Your task to perform on an android device: turn notification dots off Image 0: 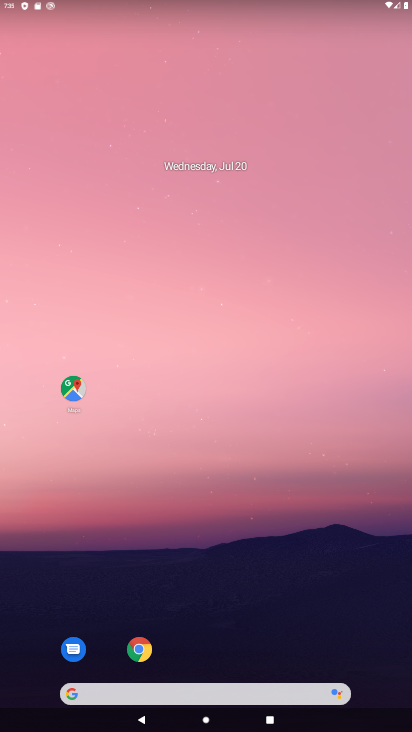
Step 0: drag from (230, 660) to (214, 80)
Your task to perform on an android device: turn notification dots off Image 1: 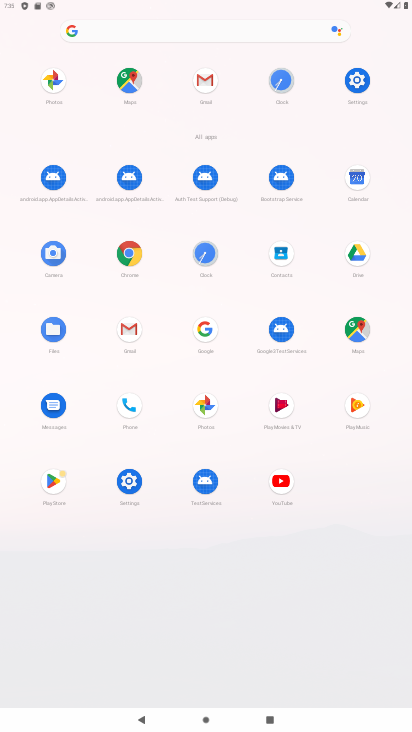
Step 1: click (345, 98)
Your task to perform on an android device: turn notification dots off Image 2: 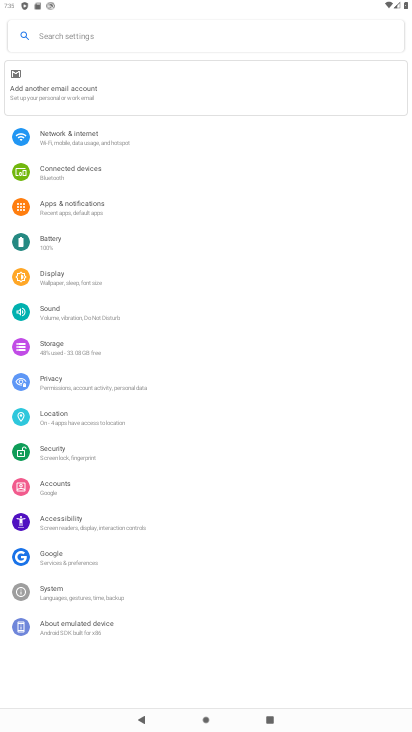
Step 2: click (102, 213)
Your task to perform on an android device: turn notification dots off Image 3: 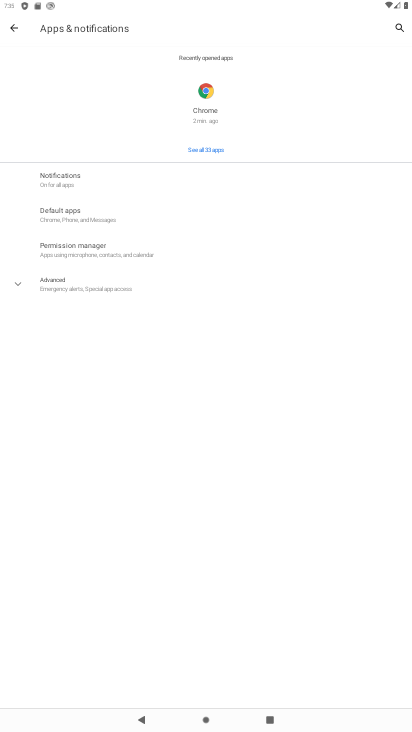
Step 3: click (80, 174)
Your task to perform on an android device: turn notification dots off Image 4: 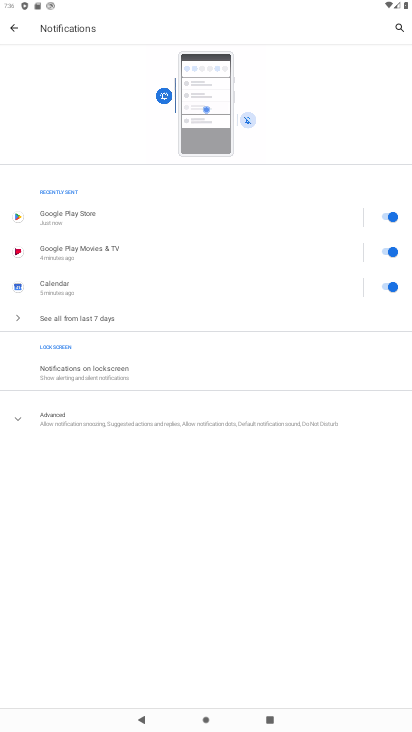
Step 4: click (104, 425)
Your task to perform on an android device: turn notification dots off Image 5: 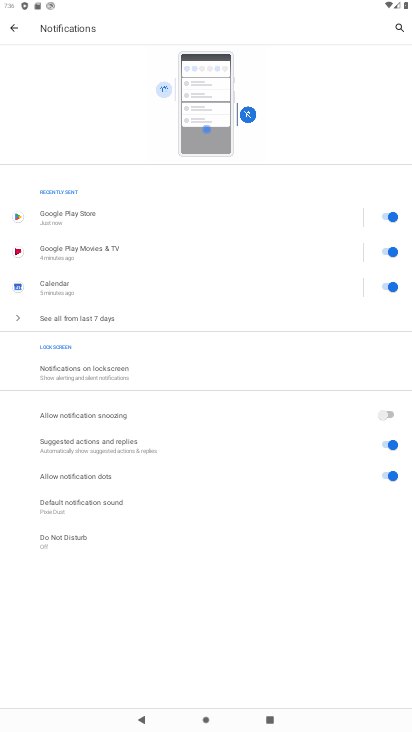
Step 5: click (386, 472)
Your task to perform on an android device: turn notification dots off Image 6: 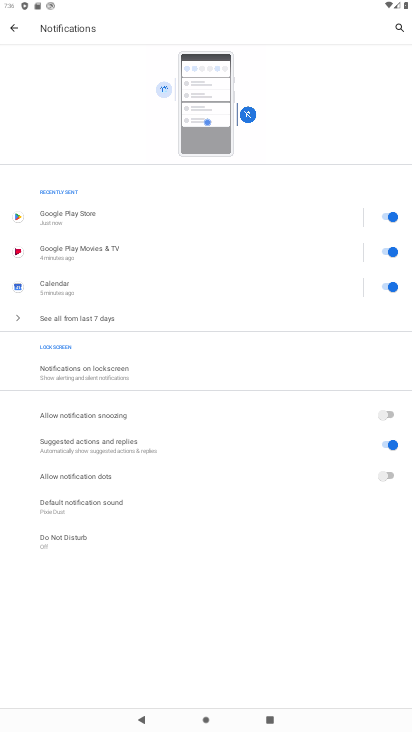
Step 6: click (386, 472)
Your task to perform on an android device: turn notification dots off Image 7: 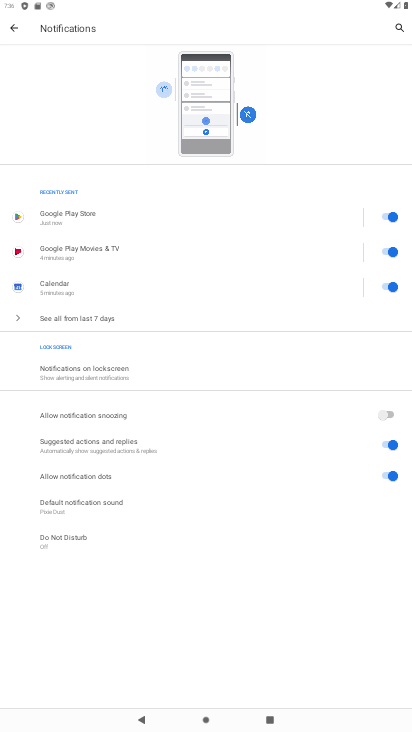
Step 7: click (389, 476)
Your task to perform on an android device: turn notification dots off Image 8: 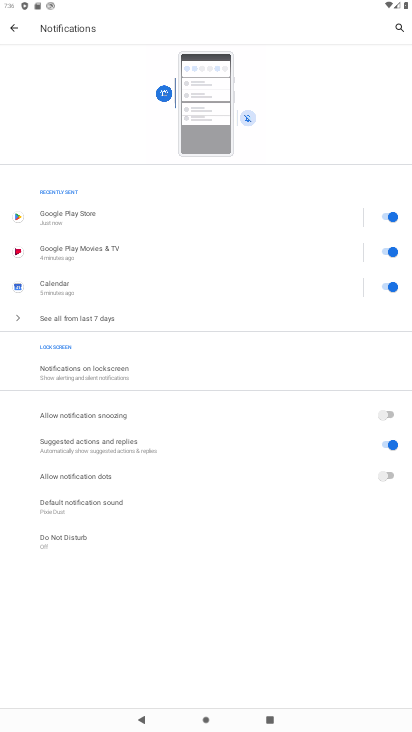
Step 8: task complete